Your task to perform on an android device: Add rayovac triple a to the cart on walmart.com, then select checkout. Image 0: 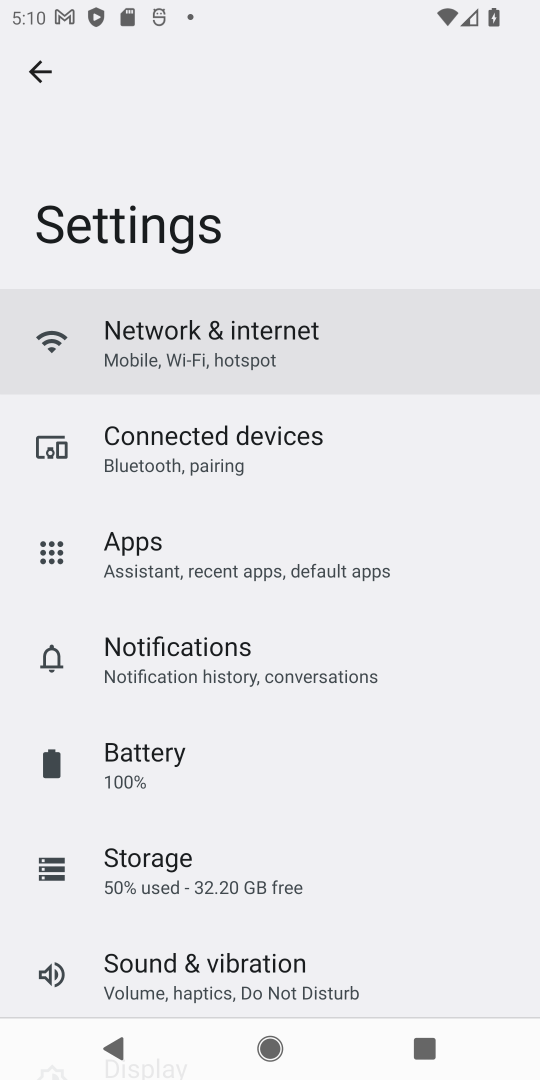
Step 0: press home button
Your task to perform on an android device: Add rayovac triple a to the cart on walmart.com, then select checkout. Image 1: 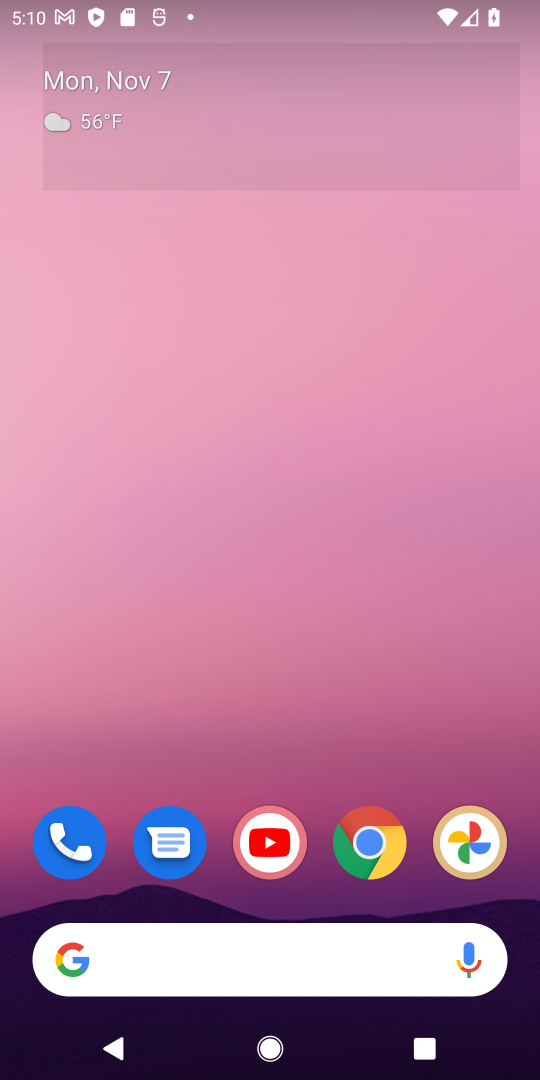
Step 1: click (369, 837)
Your task to perform on an android device: Add rayovac triple a to the cart on walmart.com, then select checkout. Image 2: 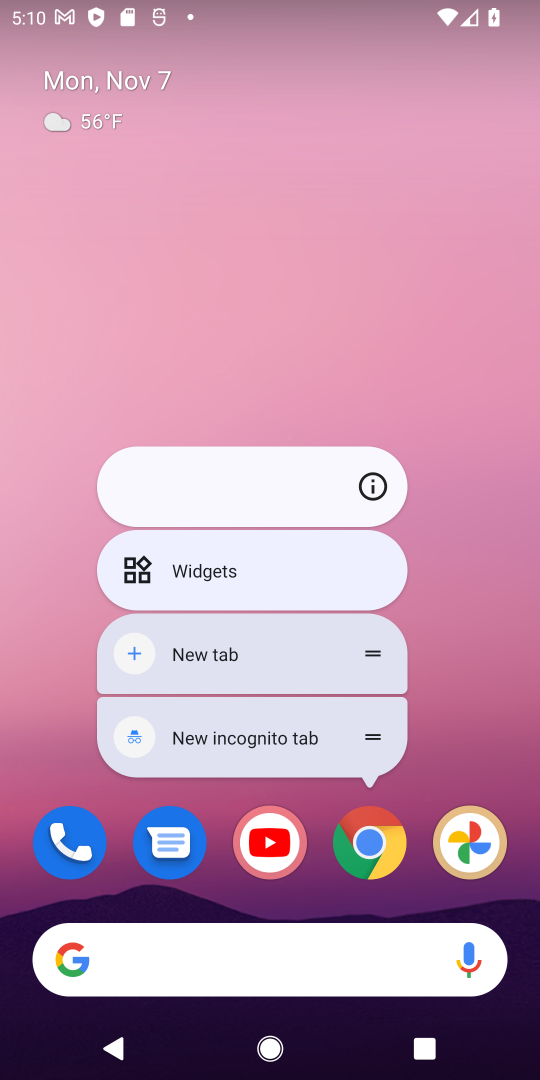
Step 2: click (365, 856)
Your task to perform on an android device: Add rayovac triple a to the cart on walmart.com, then select checkout. Image 3: 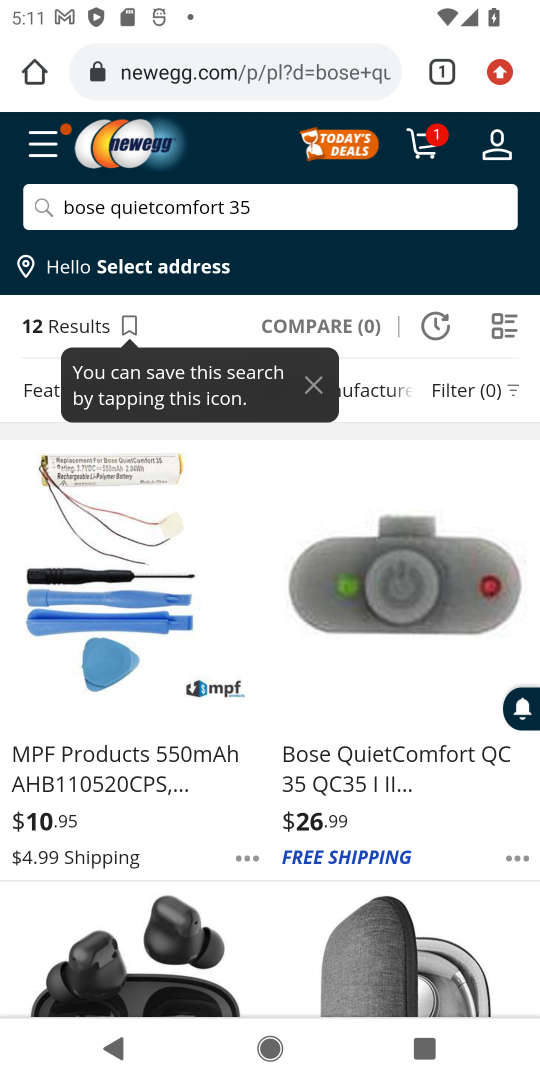
Step 3: click (221, 75)
Your task to perform on an android device: Add rayovac triple a to the cart on walmart.com, then select checkout. Image 4: 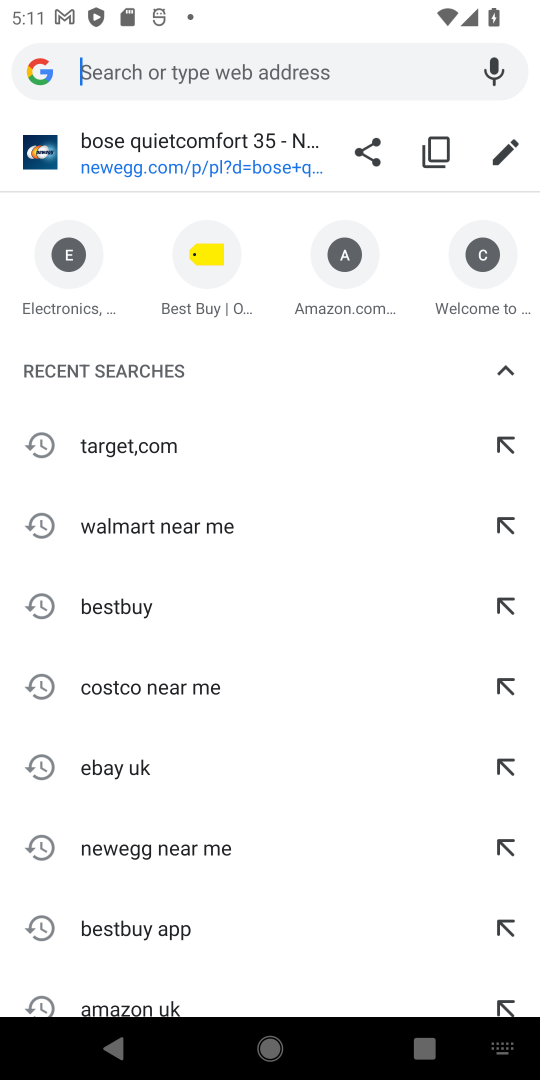
Step 4: type " walmart.com"
Your task to perform on an android device: Add rayovac triple a to the cart on walmart.com, then select checkout. Image 5: 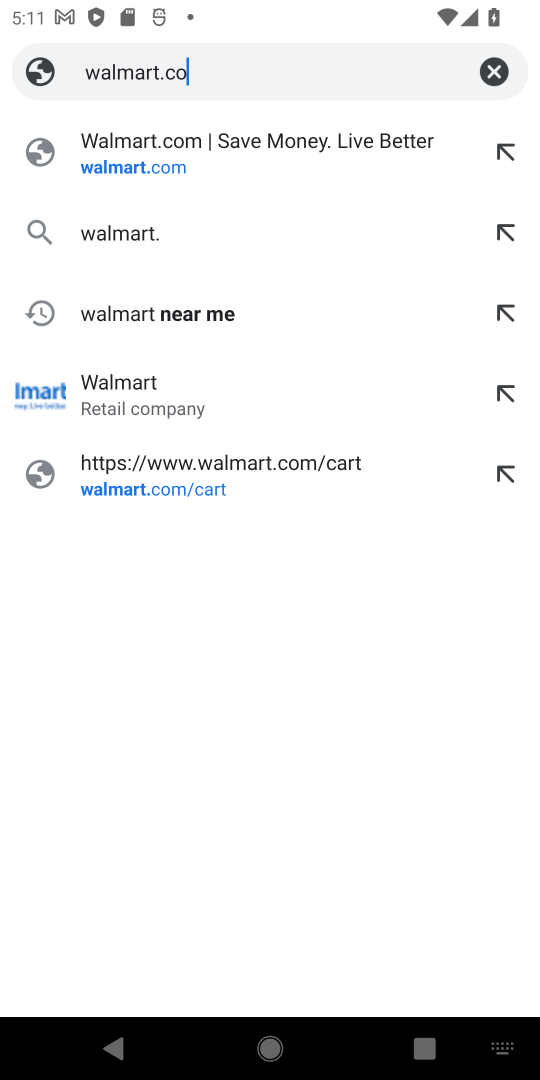
Step 5: press enter
Your task to perform on an android device: Add rayovac triple a to the cart on walmart.com, then select checkout. Image 6: 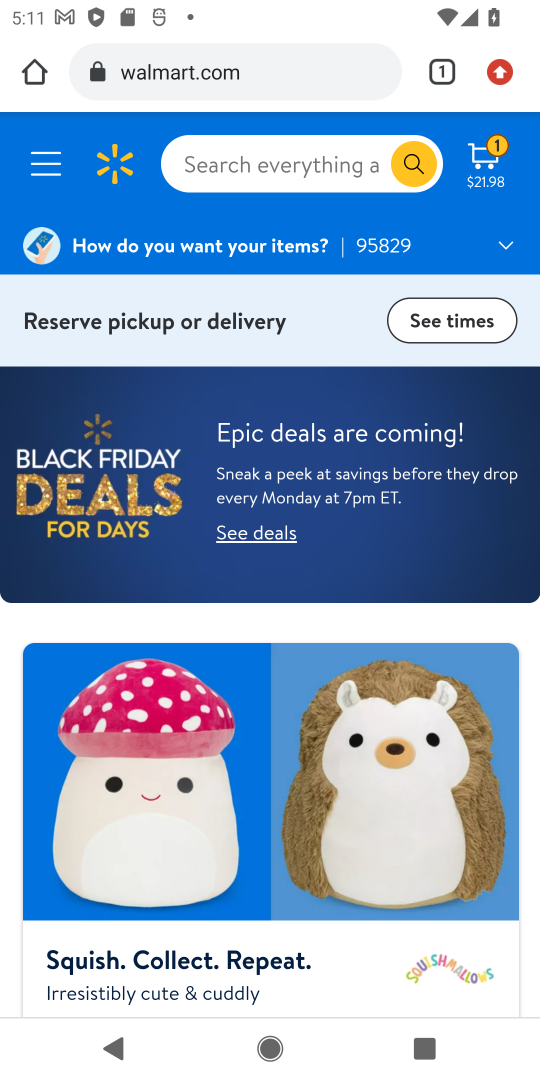
Step 6: click (202, 169)
Your task to perform on an android device: Add rayovac triple a to the cart on walmart.com, then select checkout. Image 7: 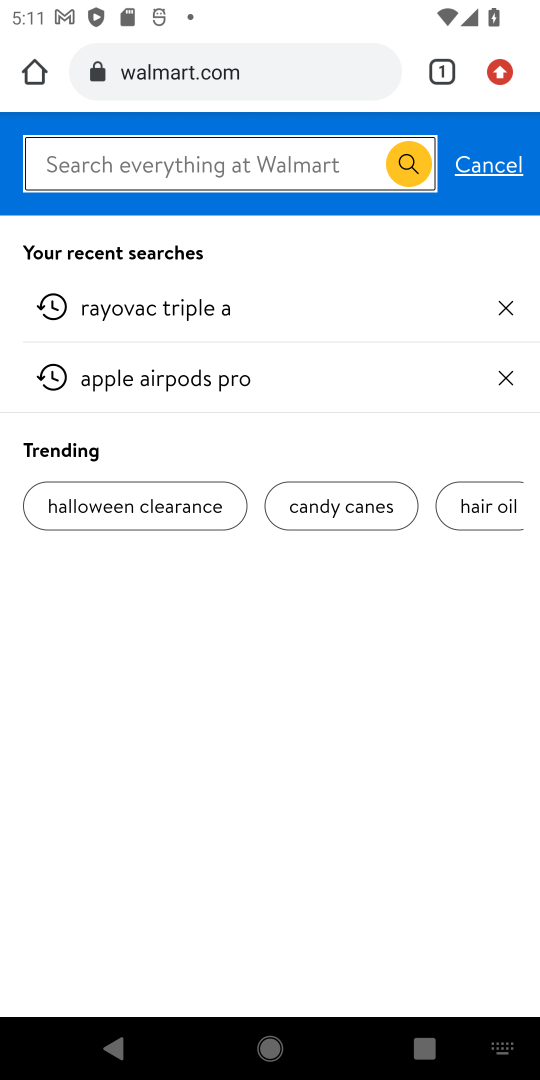
Step 7: type " rayovac triple a"
Your task to perform on an android device: Add rayovac triple a to the cart on walmart.com, then select checkout. Image 8: 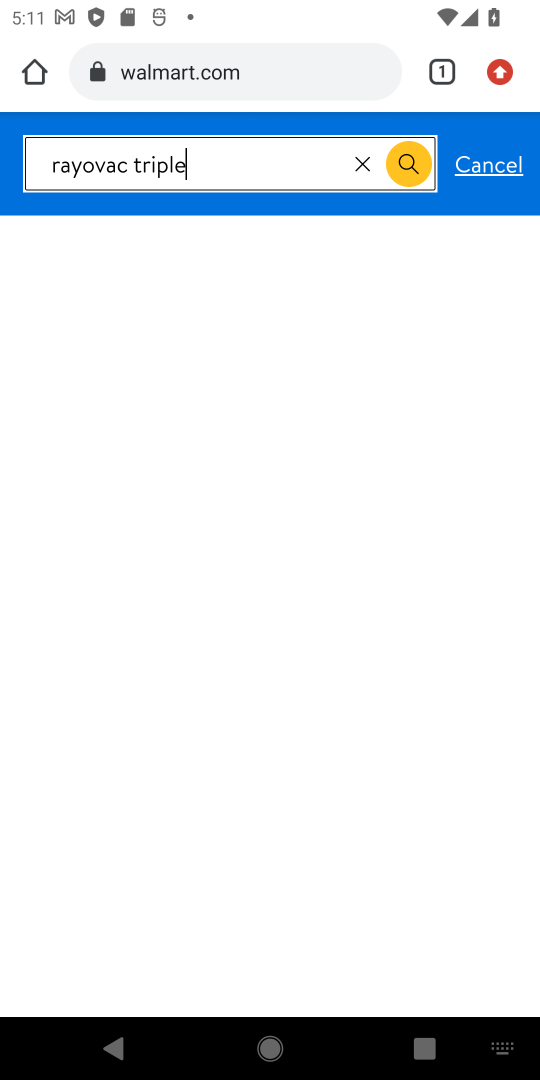
Step 8: press enter
Your task to perform on an android device: Add rayovac triple a to the cart on walmart.com, then select checkout. Image 9: 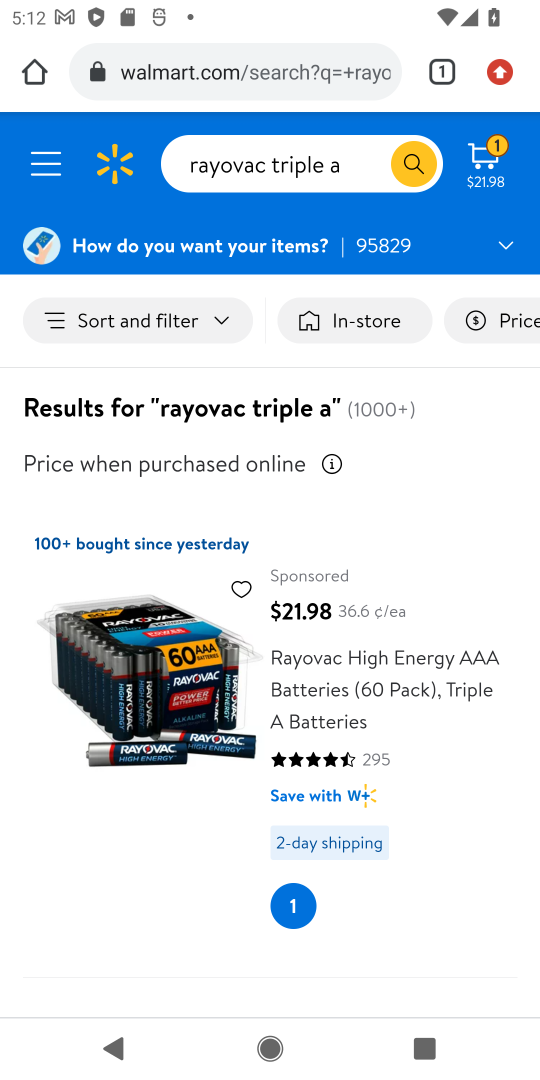
Step 9: click (354, 693)
Your task to perform on an android device: Add rayovac triple a to the cart on walmart.com, then select checkout. Image 10: 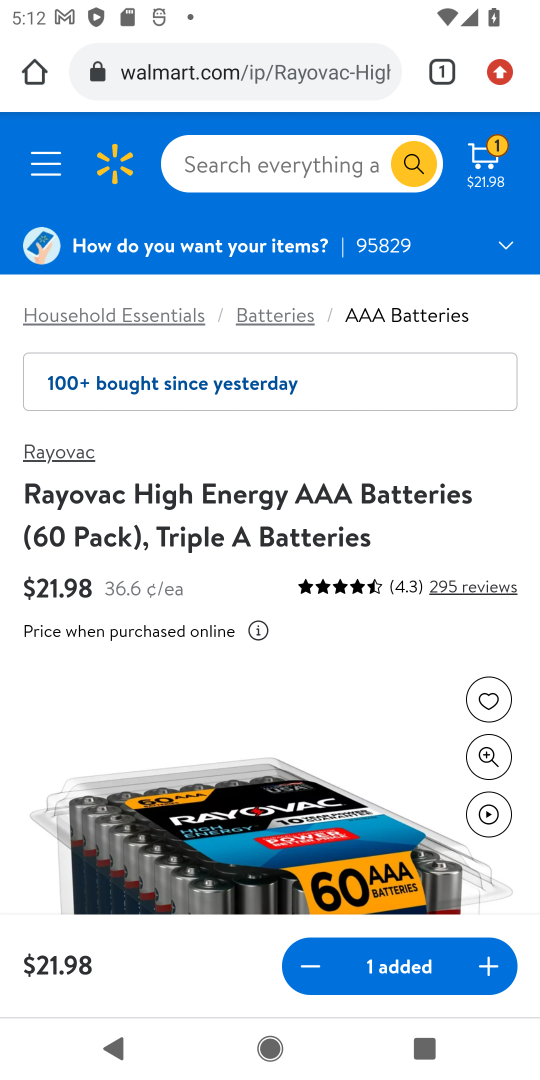
Step 10: drag from (23, 788) to (410, 141)
Your task to perform on an android device: Add rayovac triple a to the cart on walmart.com, then select checkout. Image 11: 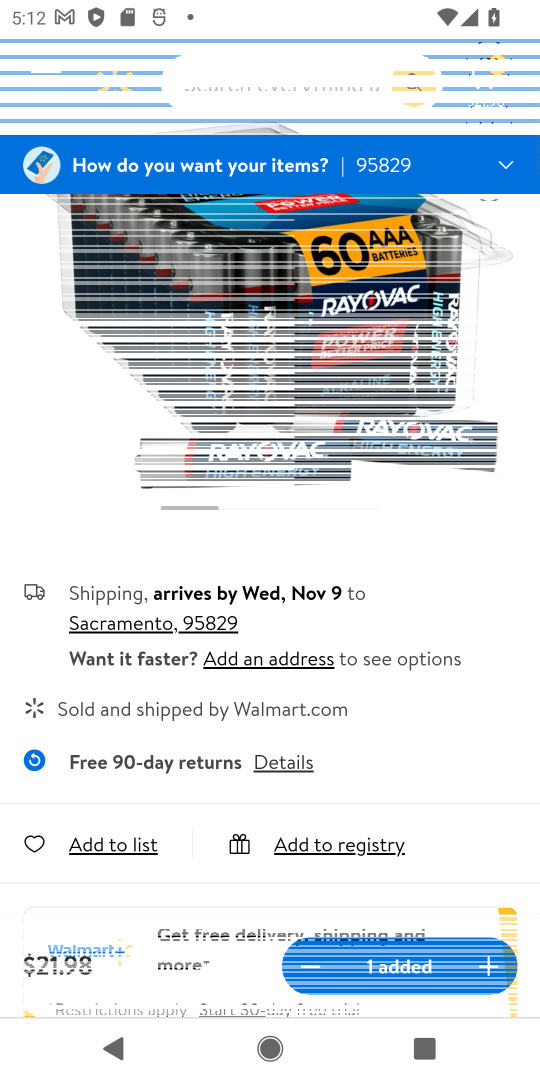
Step 11: drag from (468, 292) to (330, 757)
Your task to perform on an android device: Add rayovac triple a to the cart on walmart.com, then select checkout. Image 12: 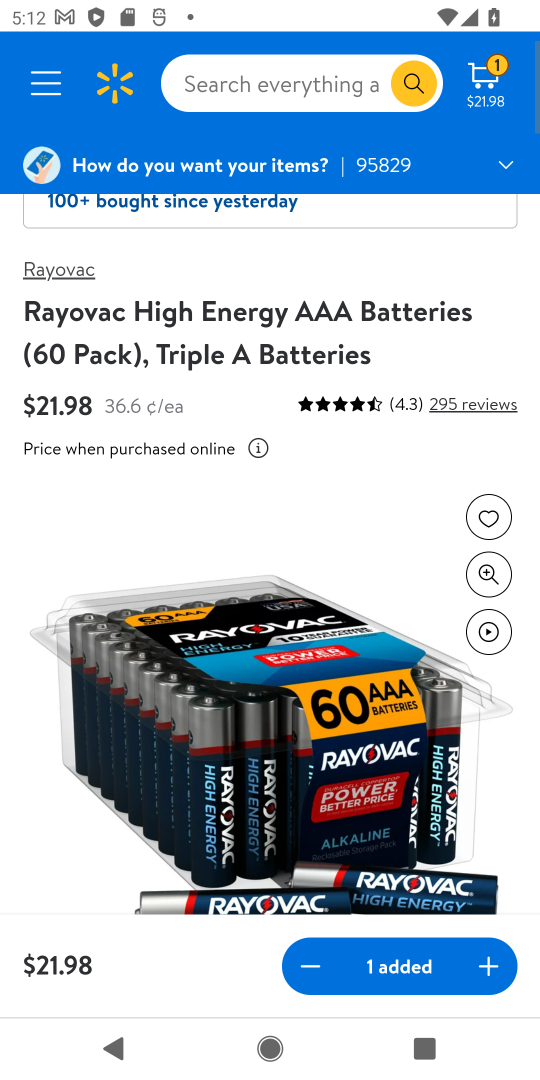
Step 12: click (484, 141)
Your task to perform on an android device: Add rayovac triple a to the cart on walmart.com, then select checkout. Image 13: 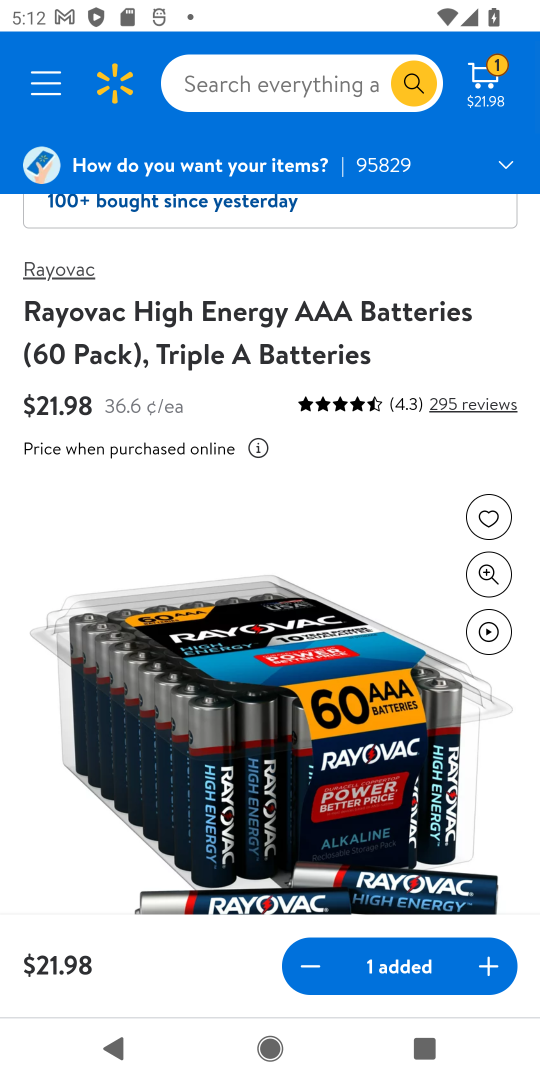
Step 13: click (471, 81)
Your task to perform on an android device: Add rayovac triple a to the cart on walmart.com, then select checkout. Image 14: 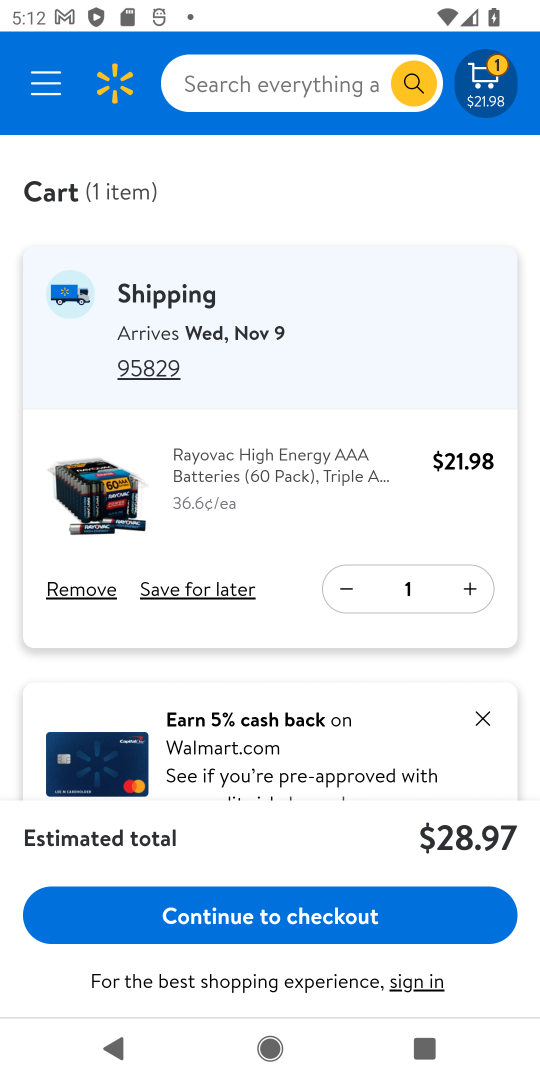
Step 14: task complete